Your task to perform on an android device: turn on translation in the chrome app Image 0: 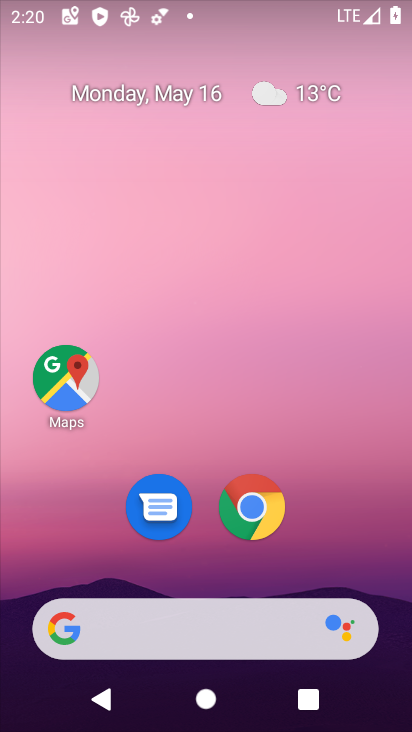
Step 0: drag from (346, 506) to (225, 27)
Your task to perform on an android device: turn on translation in the chrome app Image 1: 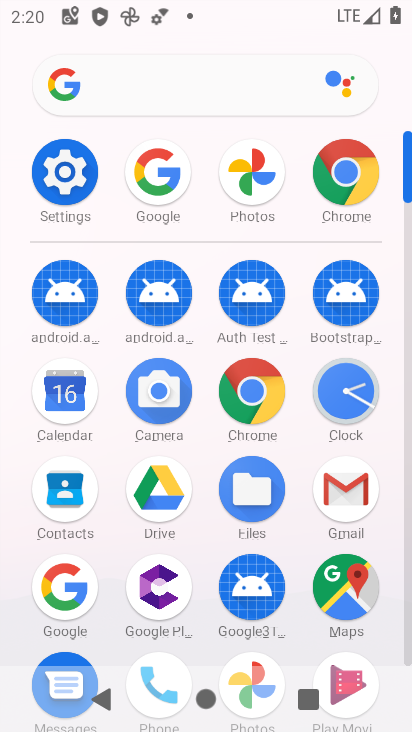
Step 1: click (256, 401)
Your task to perform on an android device: turn on translation in the chrome app Image 2: 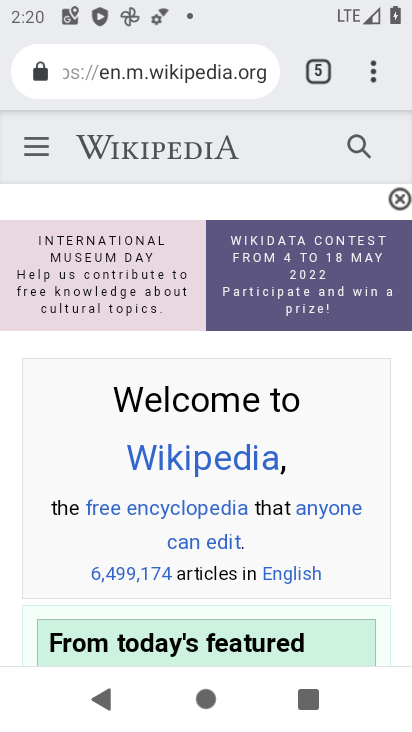
Step 2: click (375, 67)
Your task to perform on an android device: turn on translation in the chrome app Image 3: 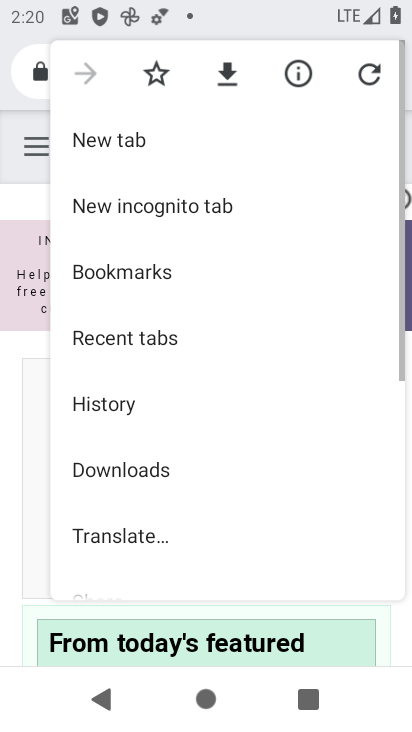
Step 3: drag from (213, 532) to (149, 123)
Your task to perform on an android device: turn on translation in the chrome app Image 4: 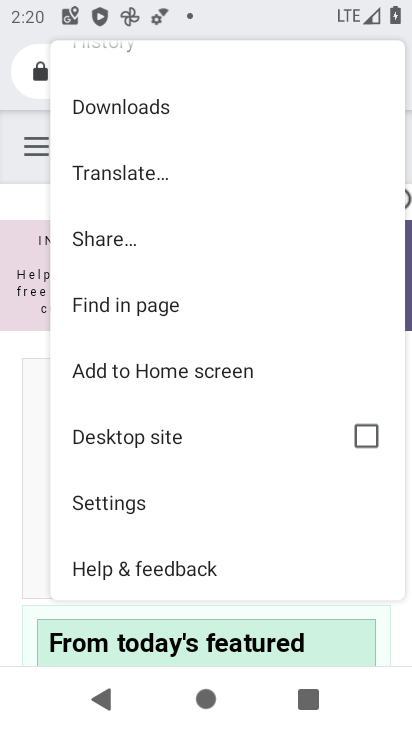
Step 4: drag from (196, 515) to (176, 232)
Your task to perform on an android device: turn on translation in the chrome app Image 5: 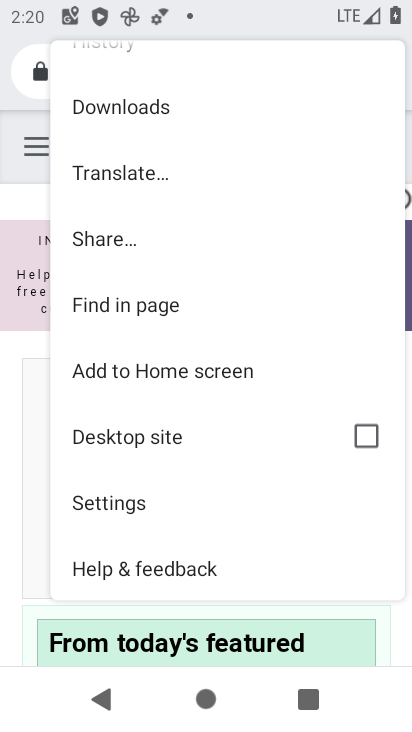
Step 5: click (148, 504)
Your task to perform on an android device: turn on translation in the chrome app Image 6: 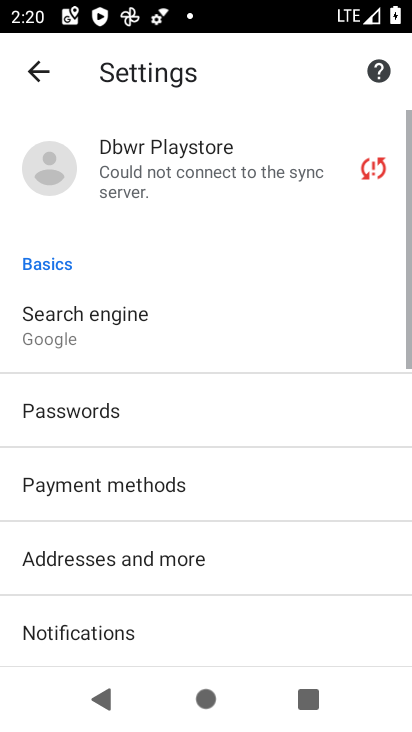
Step 6: drag from (204, 584) to (160, 193)
Your task to perform on an android device: turn on translation in the chrome app Image 7: 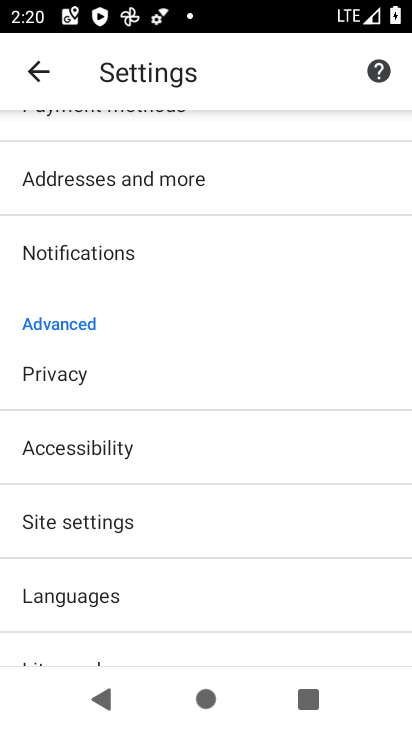
Step 7: drag from (167, 536) to (160, 390)
Your task to perform on an android device: turn on translation in the chrome app Image 8: 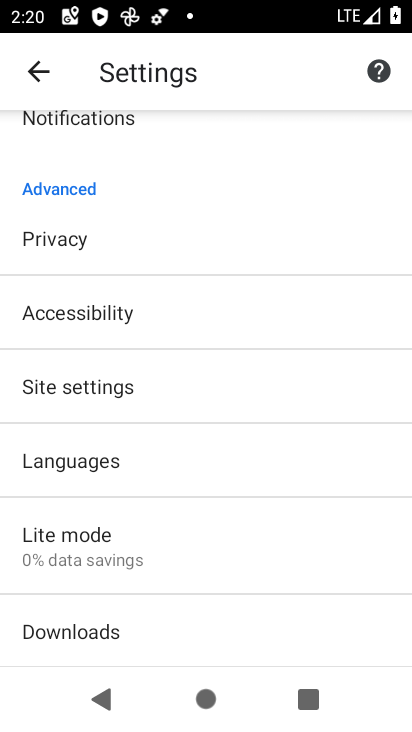
Step 8: click (109, 474)
Your task to perform on an android device: turn on translation in the chrome app Image 9: 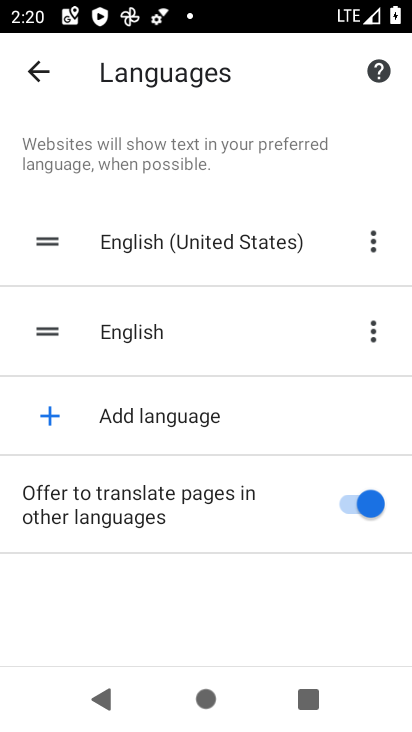
Step 9: task complete